Your task to perform on an android device: turn on the 12-hour format for clock Image 0: 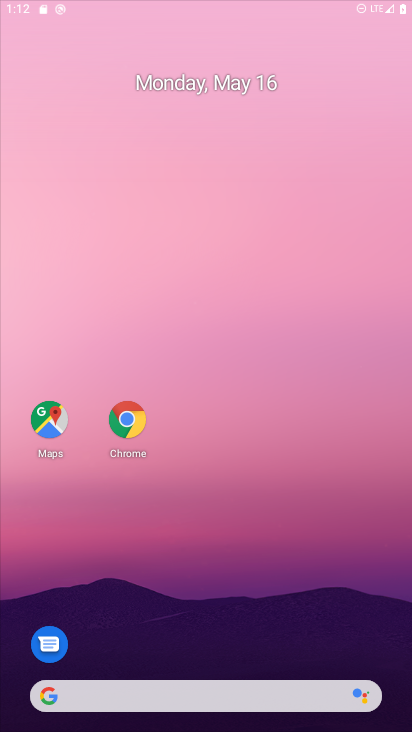
Step 0: drag from (207, 645) to (304, 151)
Your task to perform on an android device: turn on the 12-hour format for clock Image 1: 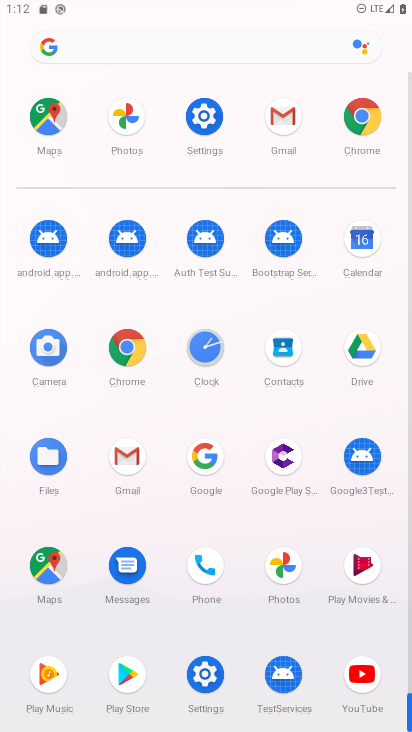
Step 1: click (204, 355)
Your task to perform on an android device: turn on the 12-hour format for clock Image 2: 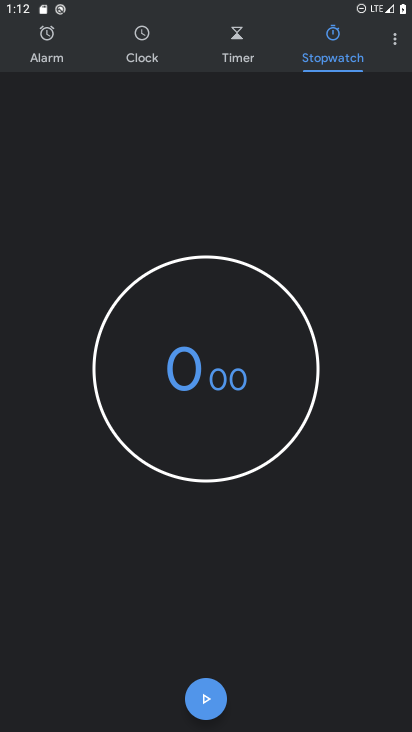
Step 2: click (386, 43)
Your task to perform on an android device: turn on the 12-hour format for clock Image 3: 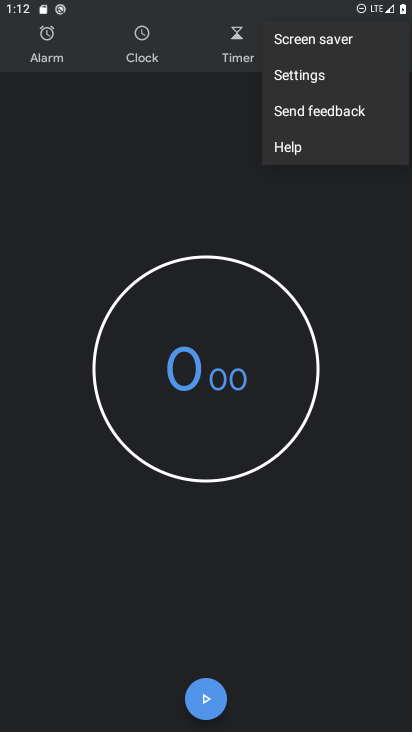
Step 3: click (307, 74)
Your task to perform on an android device: turn on the 12-hour format for clock Image 4: 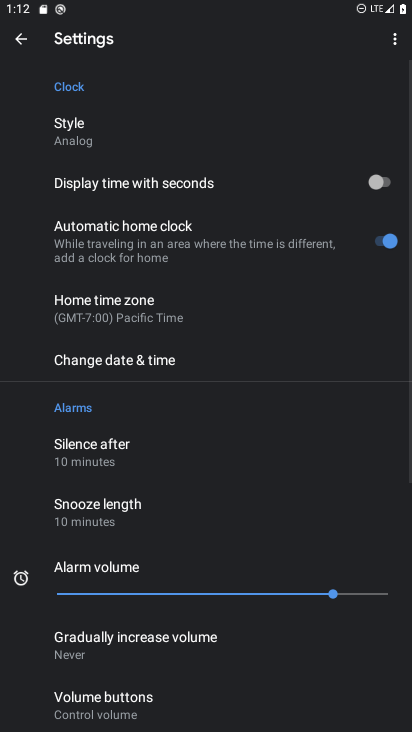
Step 4: drag from (162, 416) to (162, 302)
Your task to perform on an android device: turn on the 12-hour format for clock Image 5: 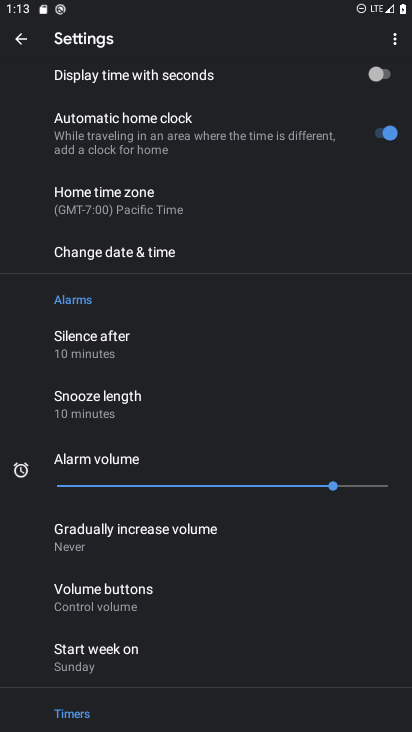
Step 5: click (184, 243)
Your task to perform on an android device: turn on the 12-hour format for clock Image 6: 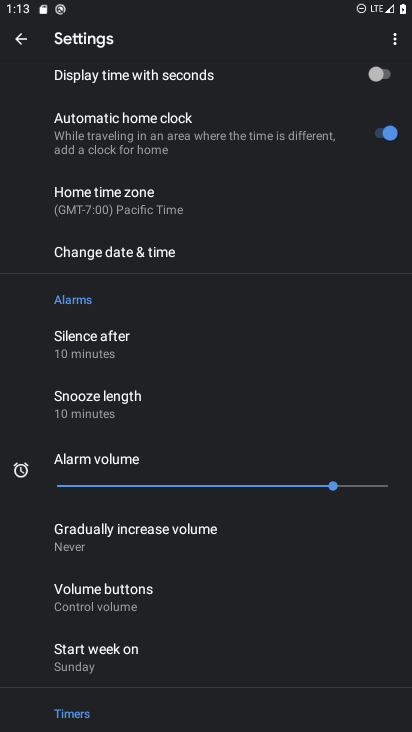
Step 6: click (181, 241)
Your task to perform on an android device: turn on the 12-hour format for clock Image 7: 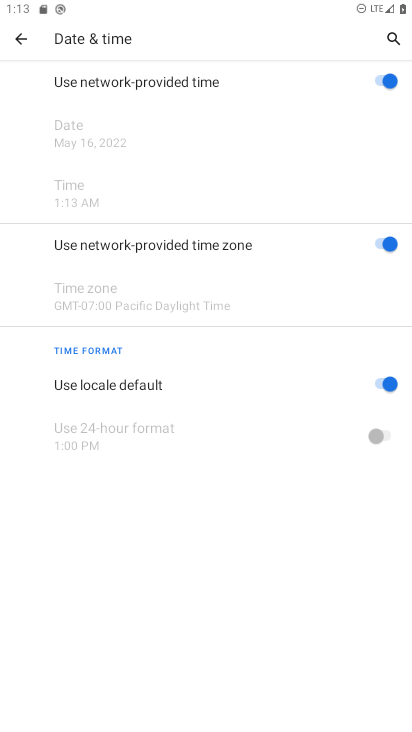
Step 7: task complete